Your task to perform on an android device: delete a single message in the gmail app Image 0: 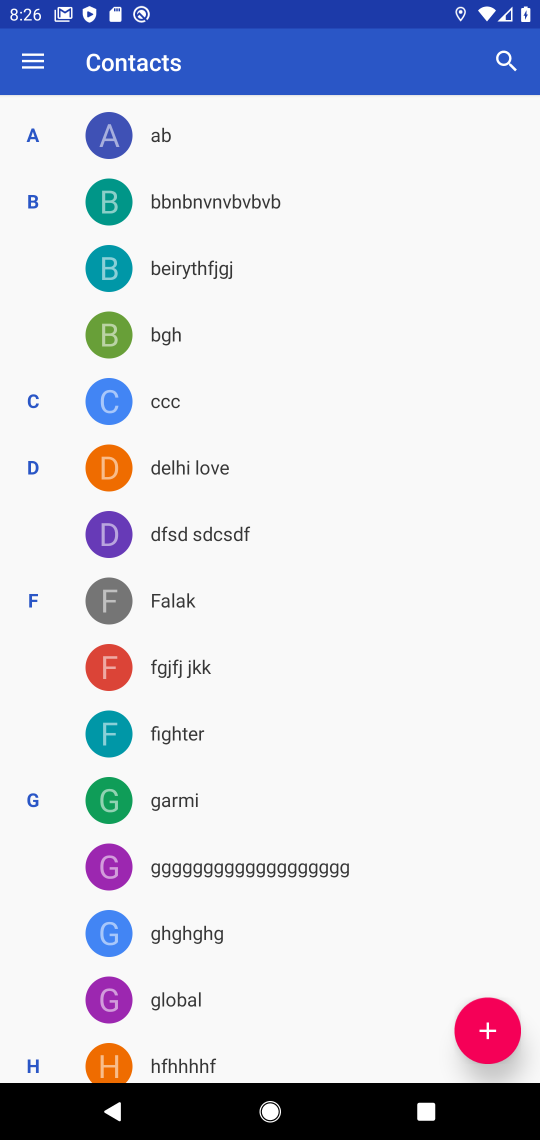
Step 0: press home button
Your task to perform on an android device: delete a single message in the gmail app Image 1: 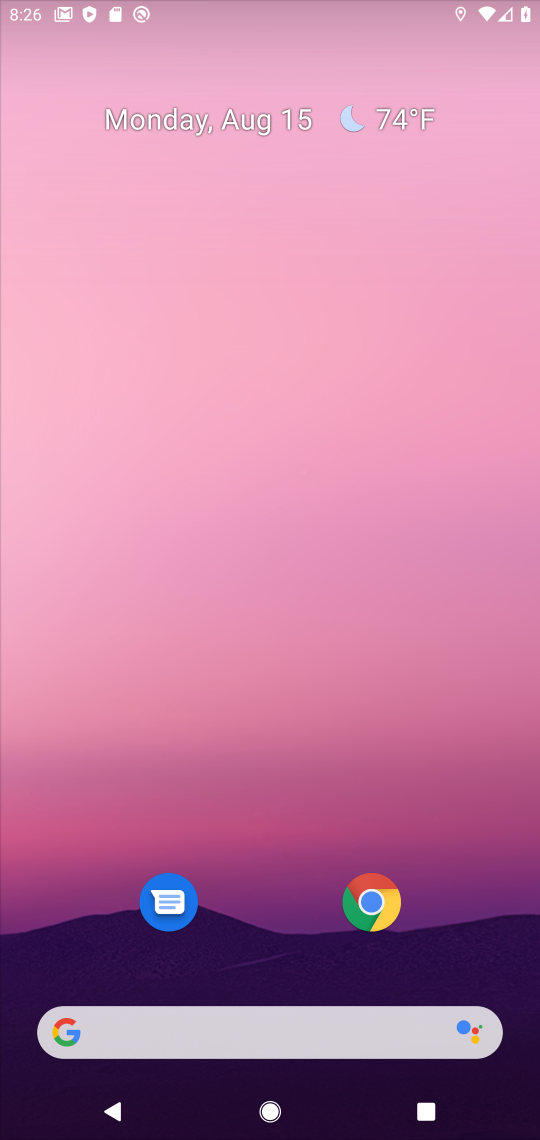
Step 1: drag from (495, 908) to (311, 40)
Your task to perform on an android device: delete a single message in the gmail app Image 2: 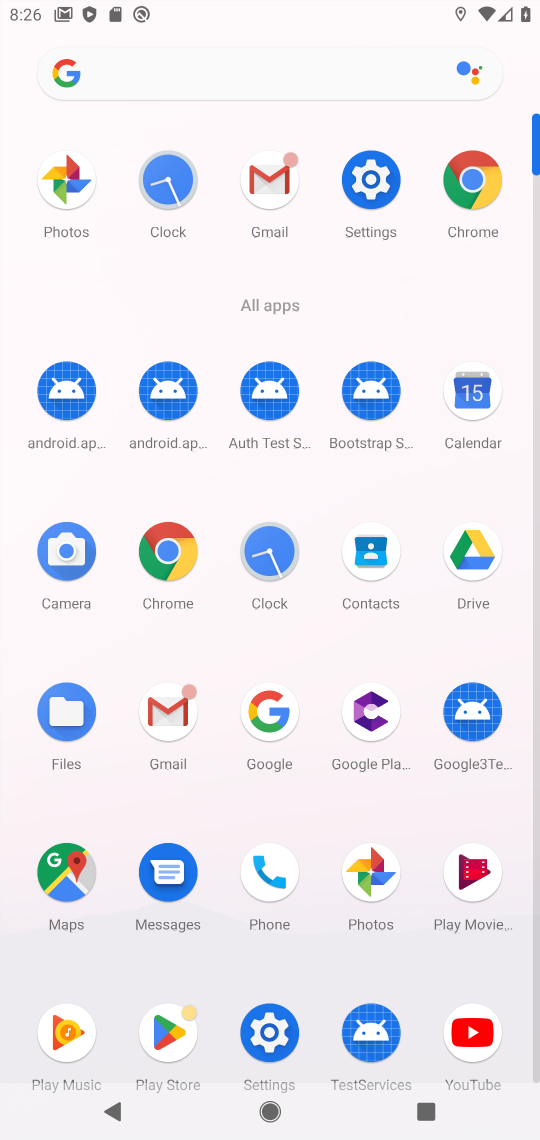
Step 2: click (180, 724)
Your task to perform on an android device: delete a single message in the gmail app Image 3: 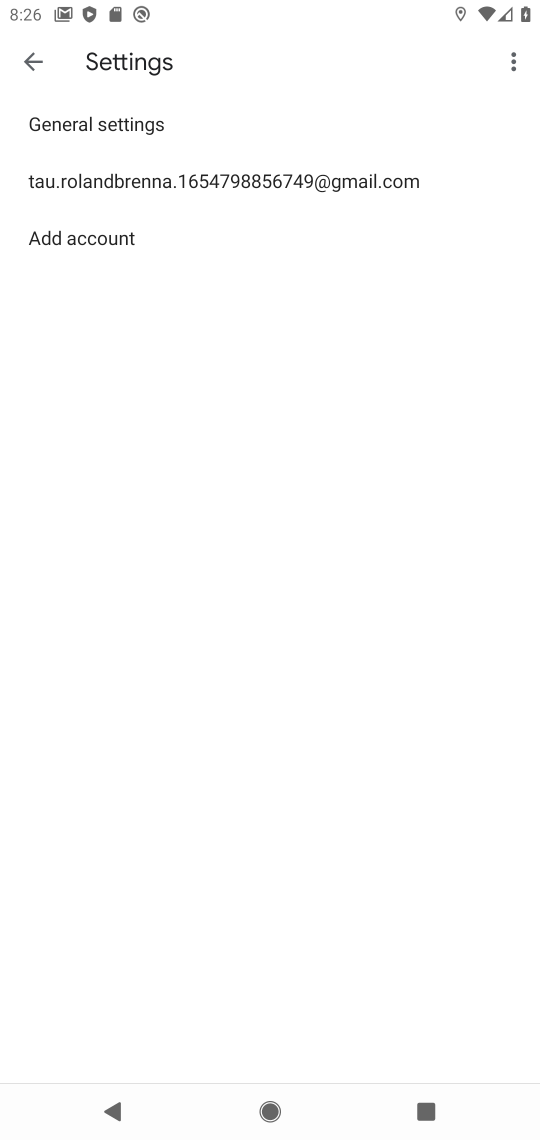
Step 3: press back button
Your task to perform on an android device: delete a single message in the gmail app Image 4: 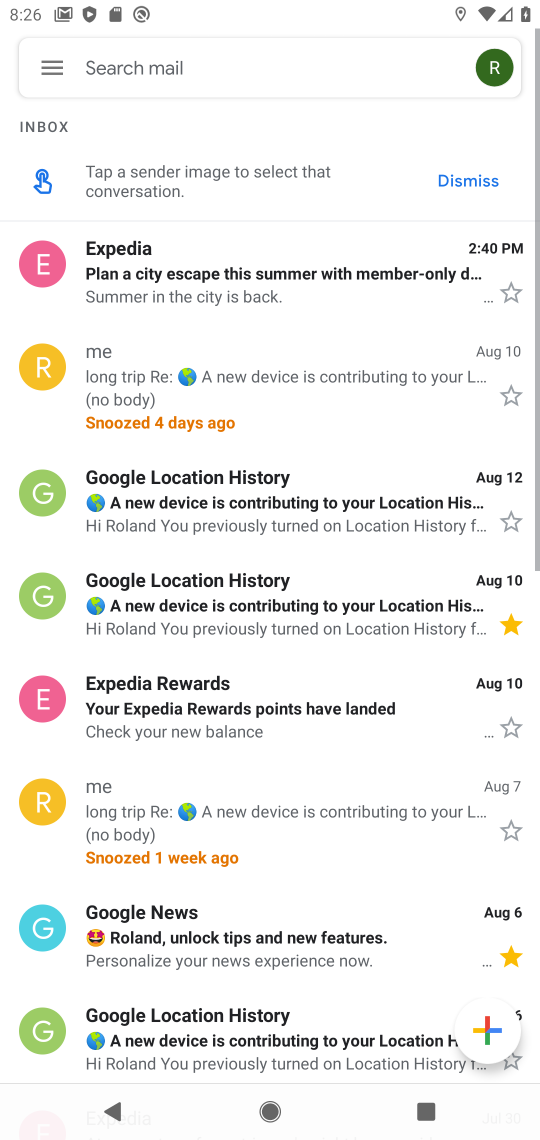
Step 4: click (161, 262)
Your task to perform on an android device: delete a single message in the gmail app Image 5: 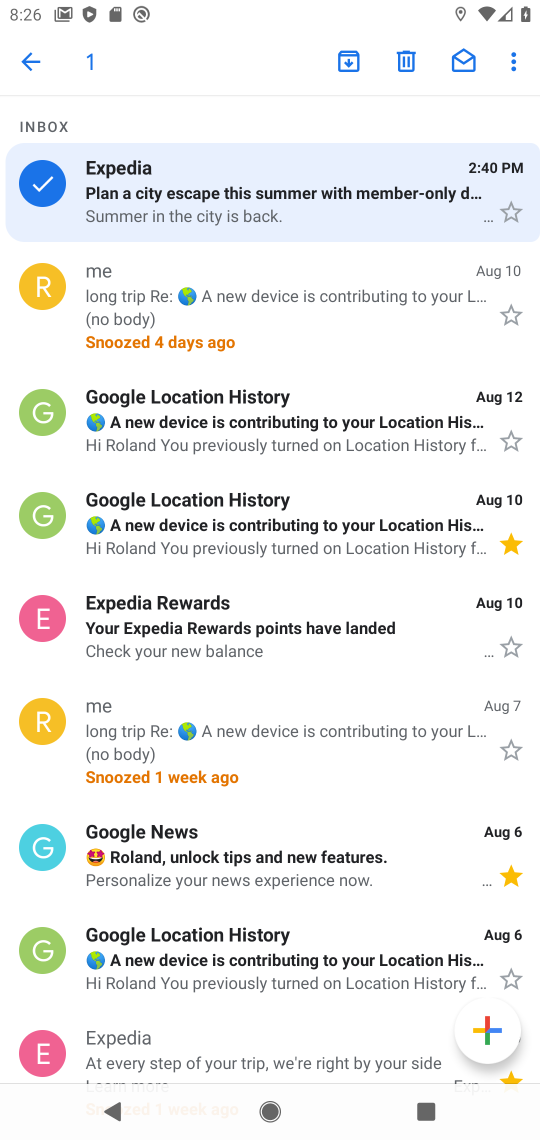
Step 5: click (415, 61)
Your task to perform on an android device: delete a single message in the gmail app Image 6: 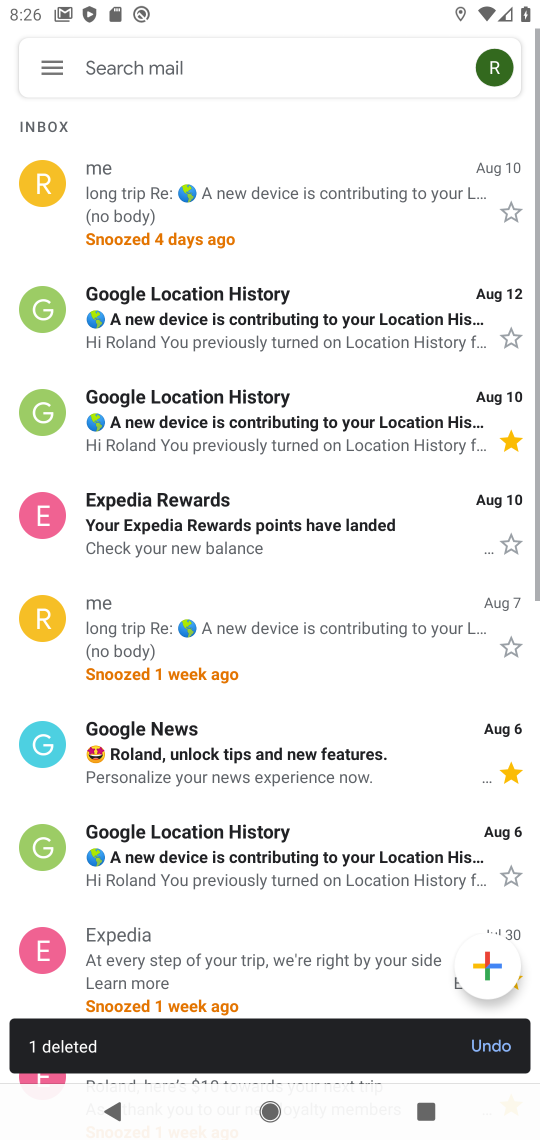
Step 6: task complete